Your task to perform on an android device: Clear the shopping cart on ebay.com. Add "usb-c to usb-a" to the cart on ebay.com Image 0: 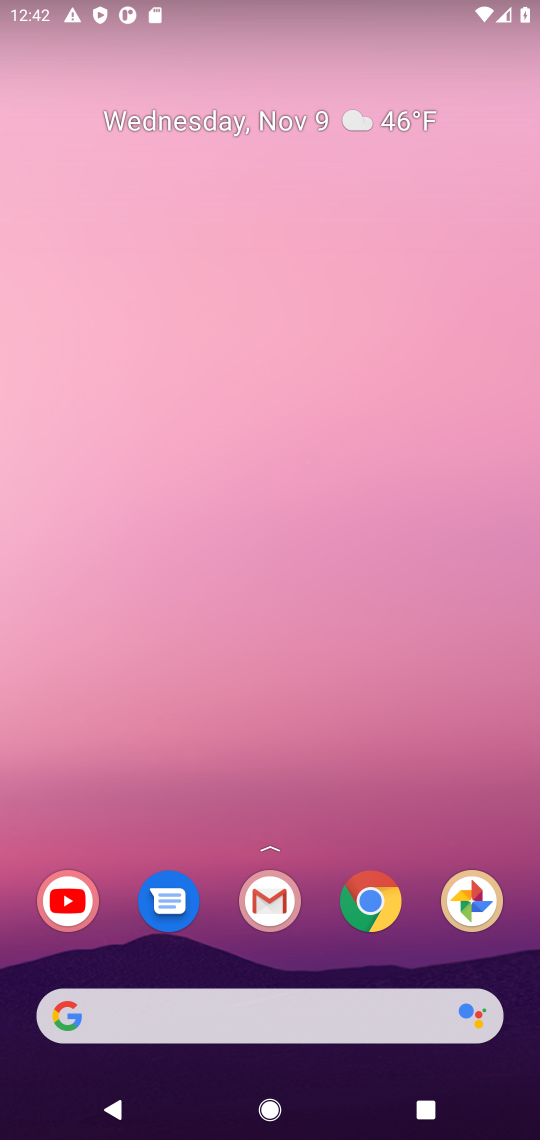
Step 0: click (367, 898)
Your task to perform on an android device: Clear the shopping cart on ebay.com. Add "usb-c to usb-a" to the cart on ebay.com Image 1: 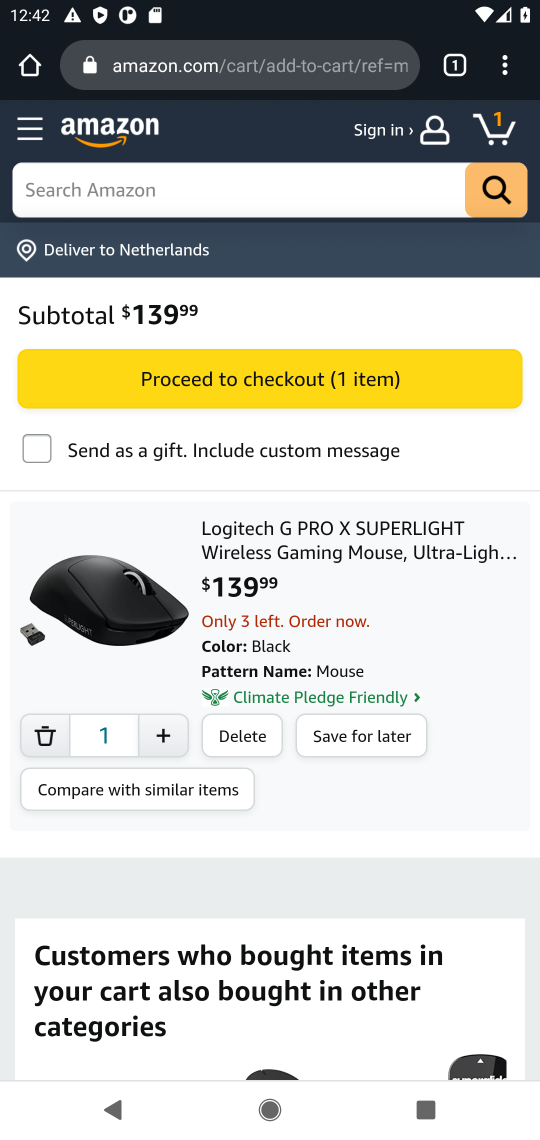
Step 1: click (231, 65)
Your task to perform on an android device: Clear the shopping cart on ebay.com. Add "usb-c to usb-a" to the cart on ebay.com Image 2: 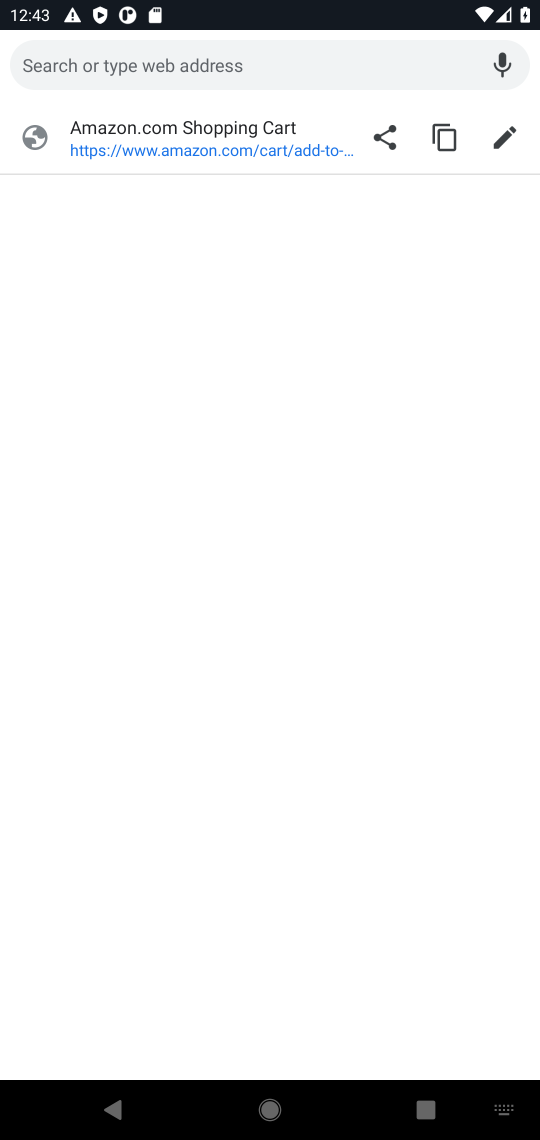
Step 2: type "ebay.com"
Your task to perform on an android device: Clear the shopping cart on ebay.com. Add "usb-c to usb-a" to the cart on ebay.com Image 3: 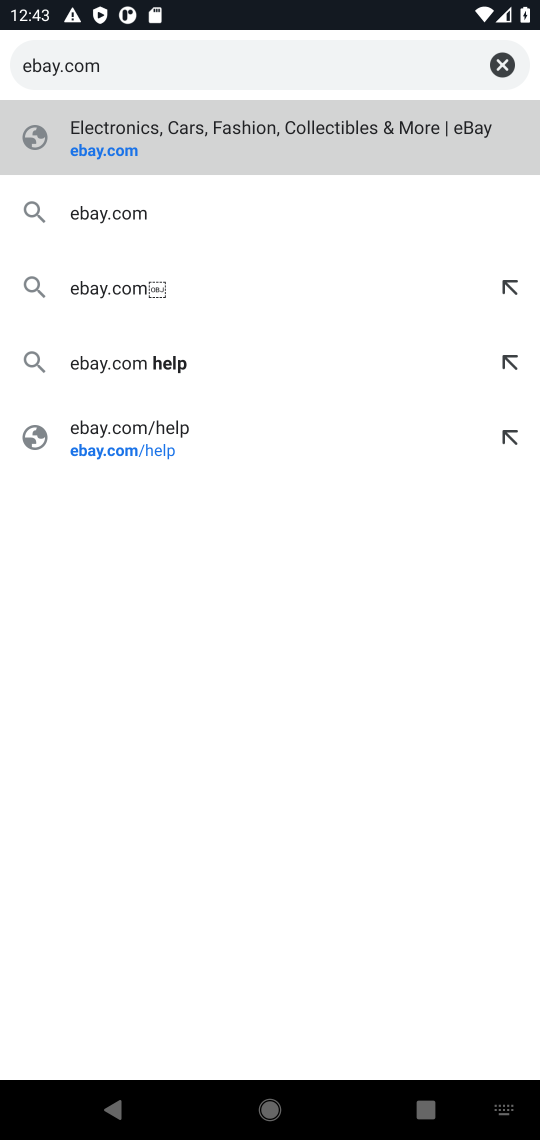
Step 3: click (111, 210)
Your task to perform on an android device: Clear the shopping cart on ebay.com. Add "usb-c to usb-a" to the cart on ebay.com Image 4: 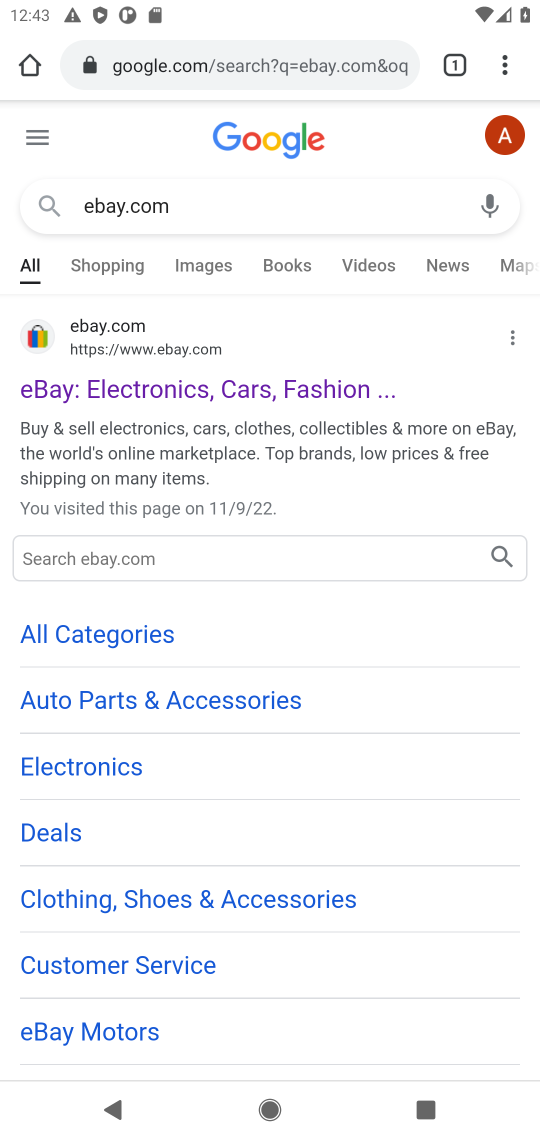
Step 4: click (174, 350)
Your task to perform on an android device: Clear the shopping cart on ebay.com. Add "usb-c to usb-a" to the cart on ebay.com Image 5: 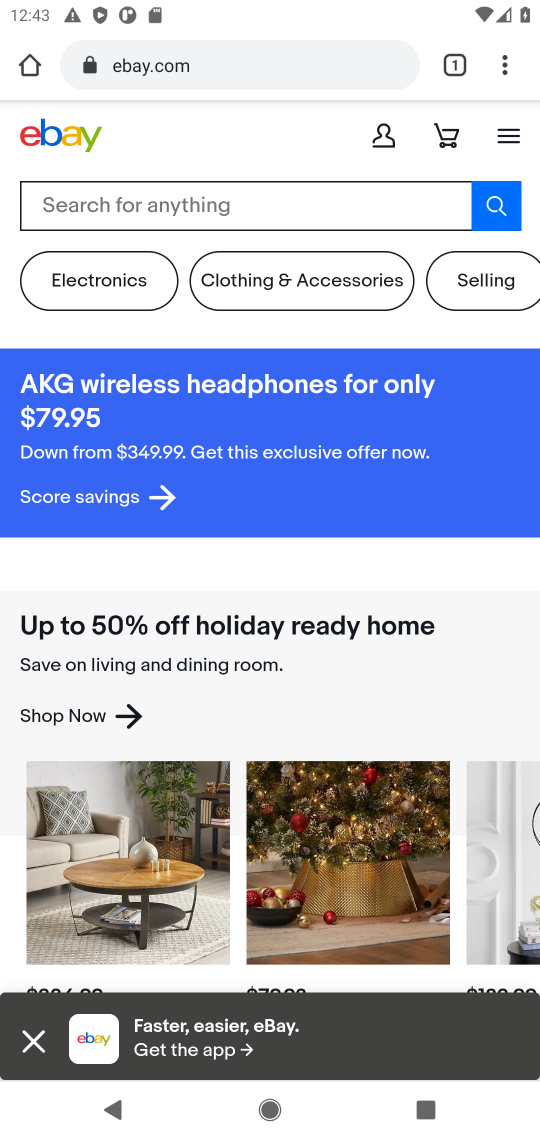
Step 5: click (287, 197)
Your task to perform on an android device: Clear the shopping cart on ebay.com. Add "usb-c to usb-a" to the cart on ebay.com Image 6: 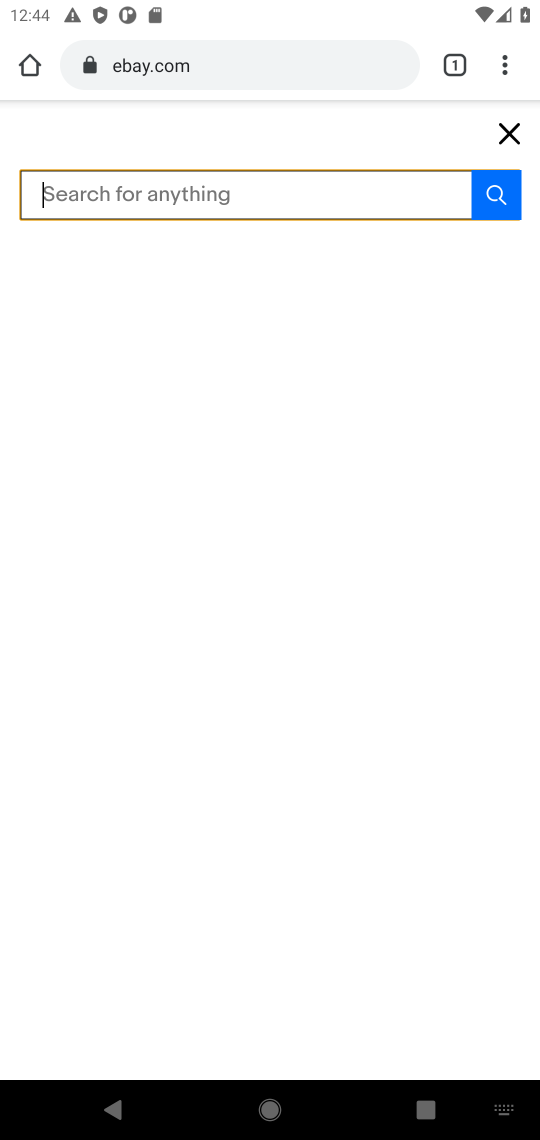
Step 6: type "usb-c to usb-a"
Your task to perform on an android device: Clear the shopping cart on ebay.com. Add "usb-c to usb-a" to the cart on ebay.com Image 7: 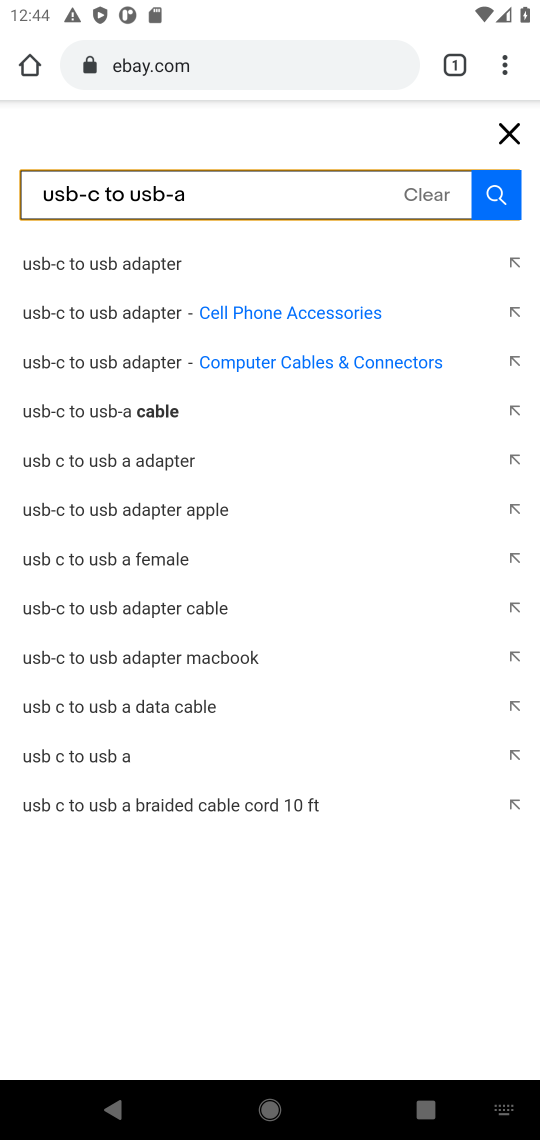
Step 7: click (112, 758)
Your task to perform on an android device: Clear the shopping cart on ebay.com. Add "usb-c to usb-a" to the cart on ebay.com Image 8: 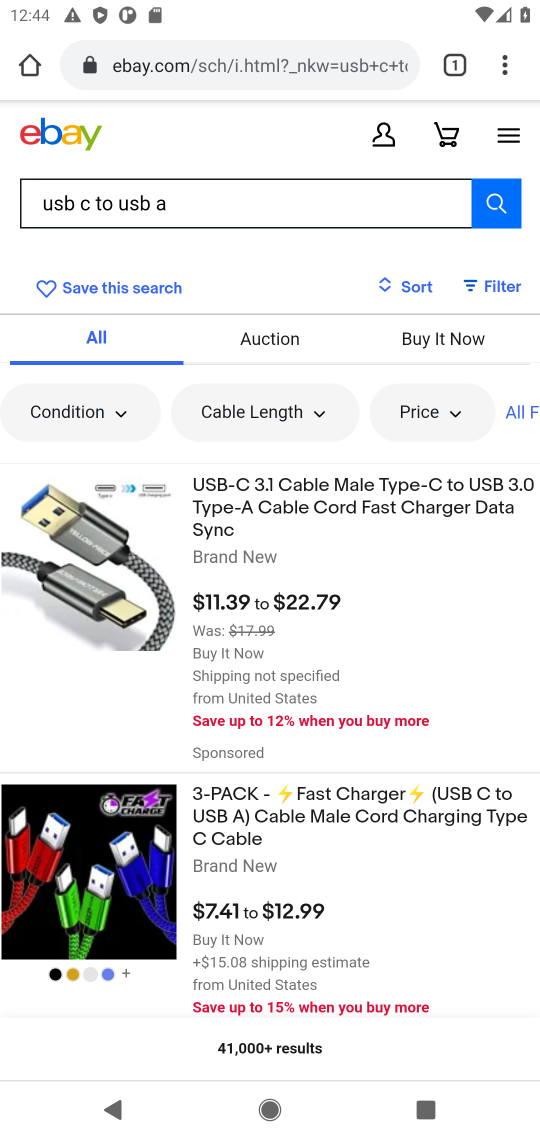
Step 8: click (102, 595)
Your task to perform on an android device: Clear the shopping cart on ebay.com. Add "usb-c to usb-a" to the cart on ebay.com Image 9: 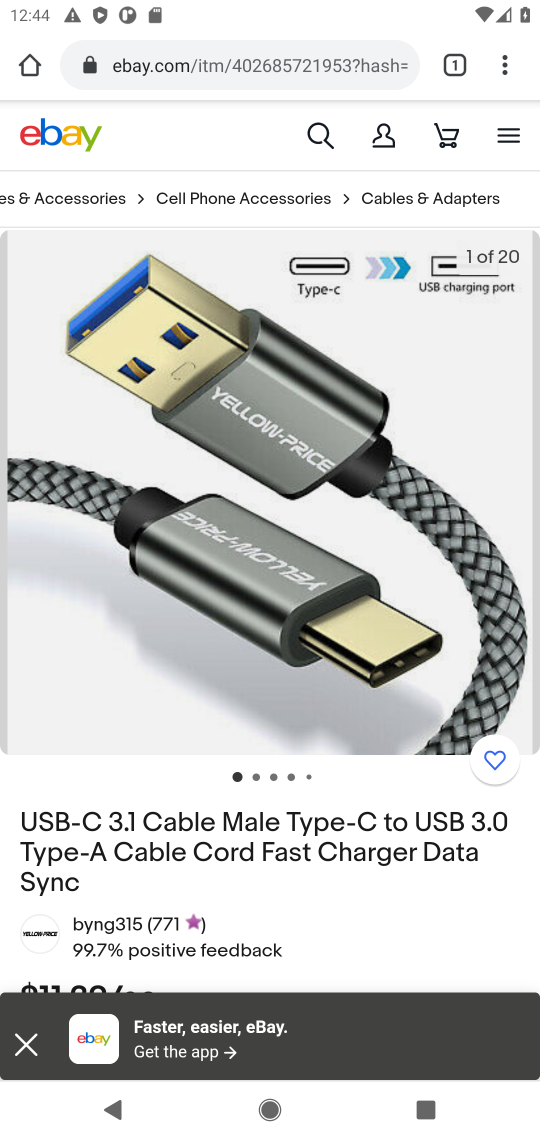
Step 9: drag from (276, 678) to (330, 268)
Your task to perform on an android device: Clear the shopping cart on ebay.com. Add "usb-c to usb-a" to the cart on ebay.com Image 10: 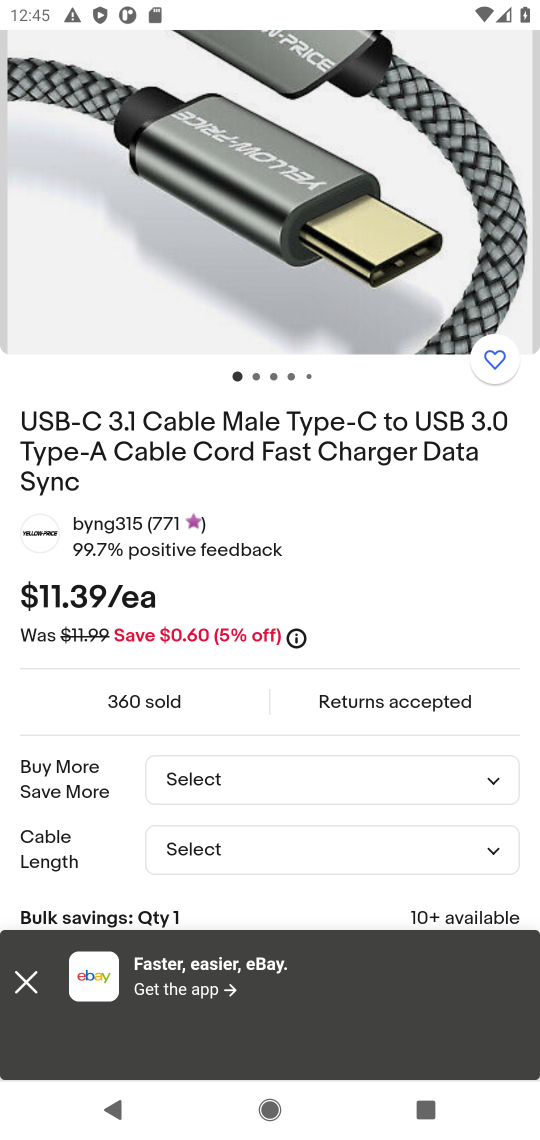
Step 10: drag from (349, 606) to (366, 146)
Your task to perform on an android device: Clear the shopping cart on ebay.com. Add "usb-c to usb-a" to the cart on ebay.com Image 11: 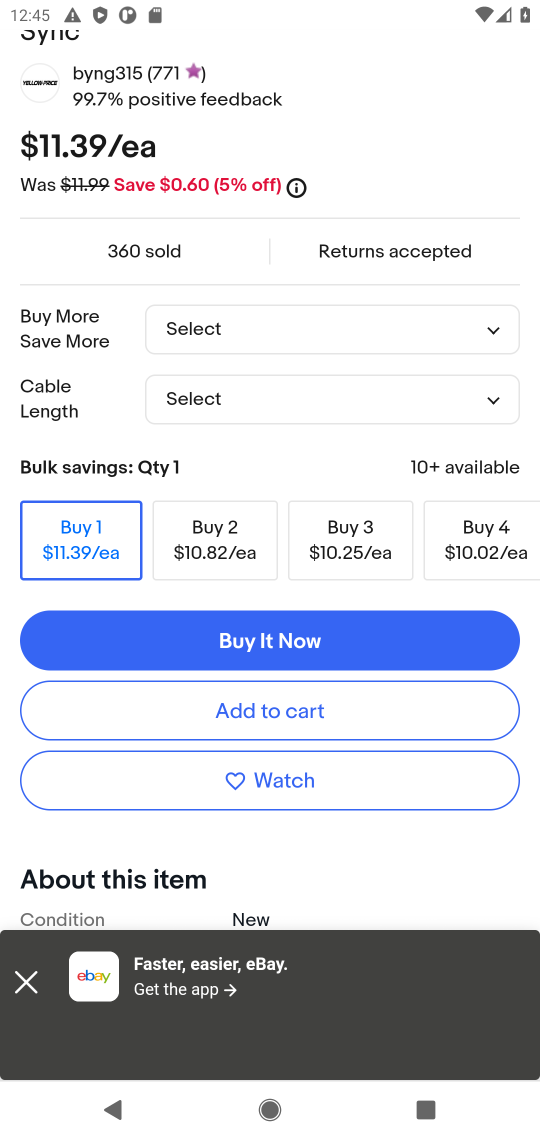
Step 11: click (289, 710)
Your task to perform on an android device: Clear the shopping cart on ebay.com. Add "usb-c to usb-a" to the cart on ebay.com Image 12: 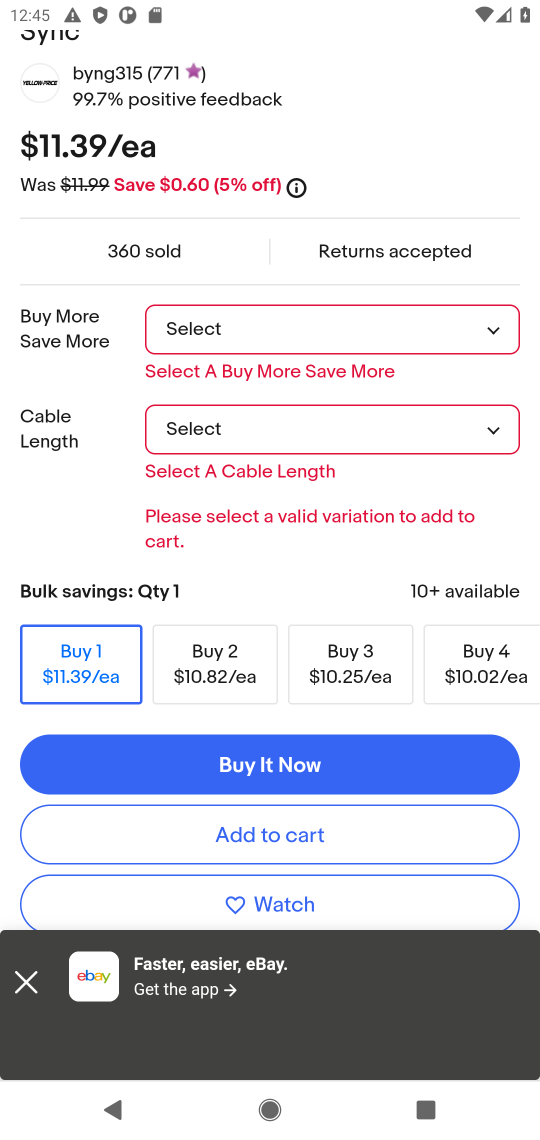
Step 12: click (293, 836)
Your task to perform on an android device: Clear the shopping cart on ebay.com. Add "usb-c to usb-a" to the cart on ebay.com Image 13: 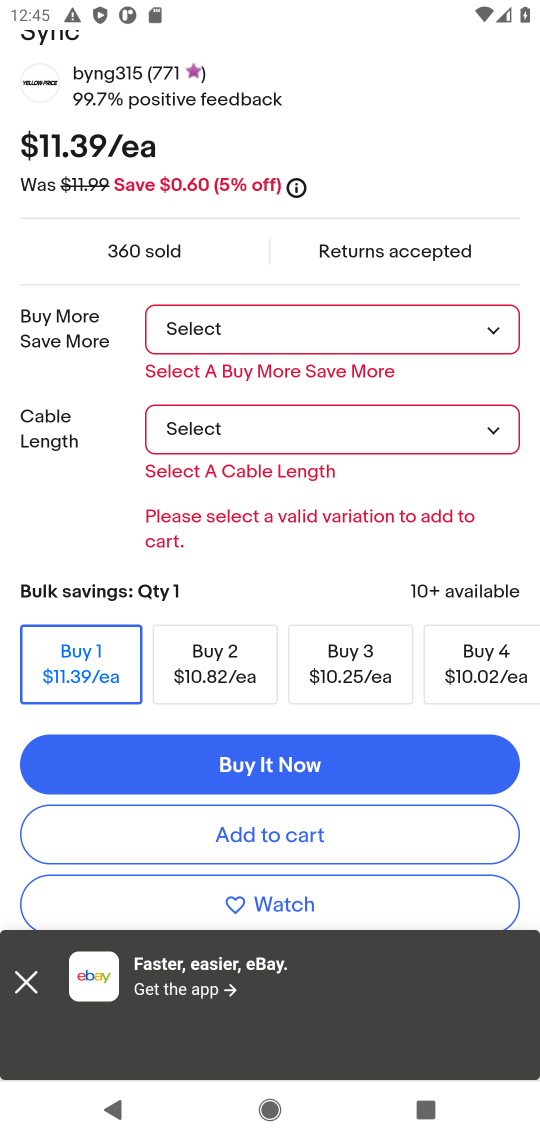
Step 13: click (293, 836)
Your task to perform on an android device: Clear the shopping cart on ebay.com. Add "usb-c to usb-a" to the cart on ebay.com Image 14: 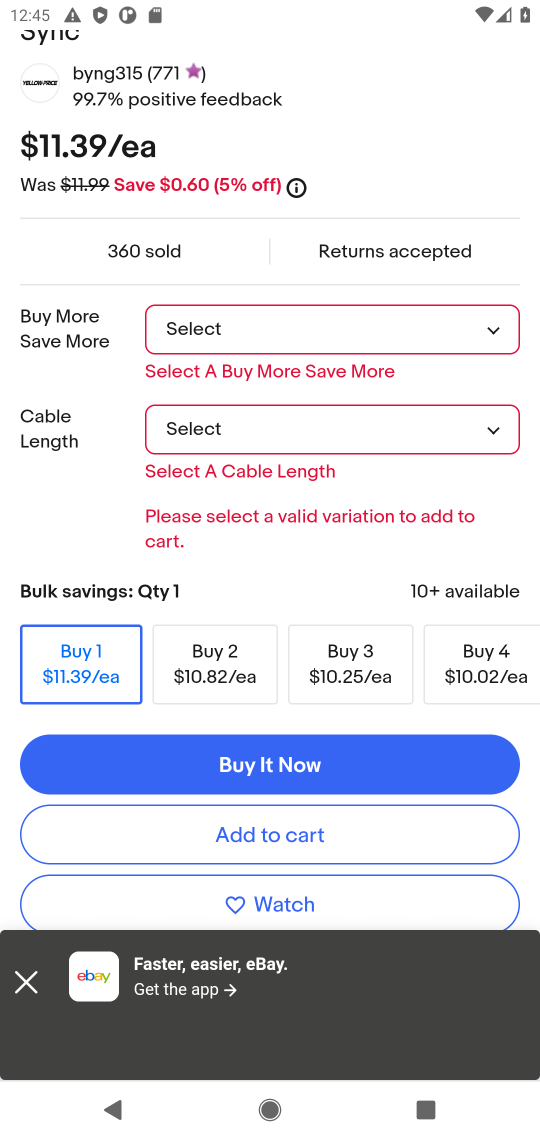
Step 14: press back button
Your task to perform on an android device: Clear the shopping cart on ebay.com. Add "usb-c to usb-a" to the cart on ebay.com Image 15: 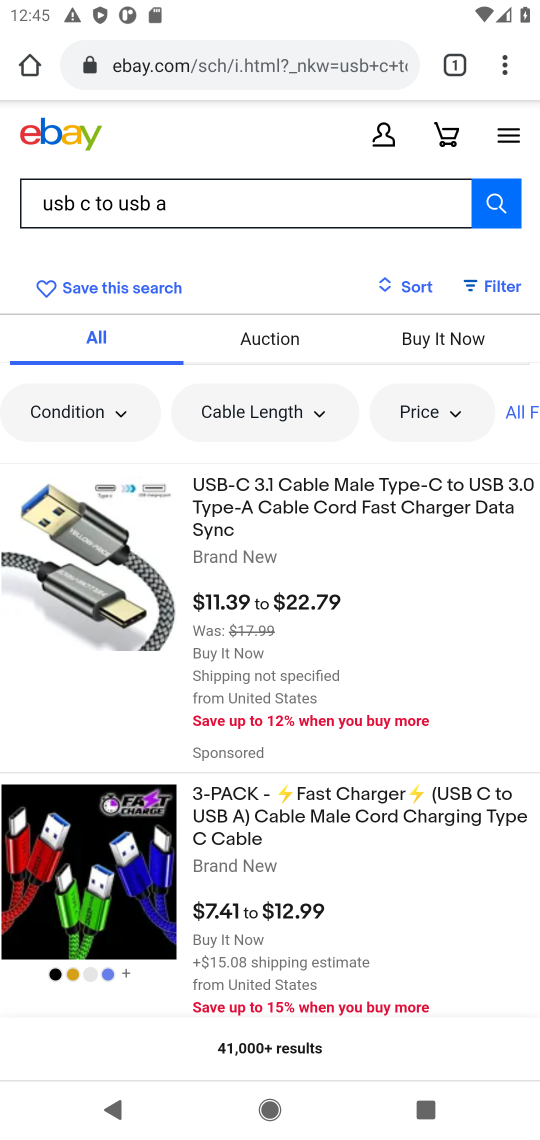
Step 15: click (98, 869)
Your task to perform on an android device: Clear the shopping cart on ebay.com. Add "usb-c to usb-a" to the cart on ebay.com Image 16: 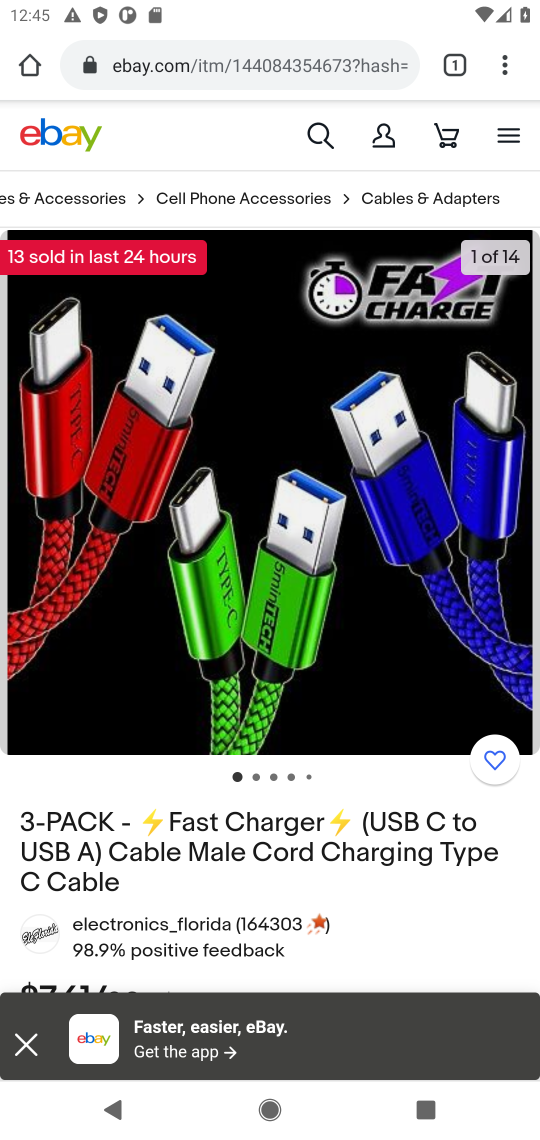
Step 16: drag from (293, 854) to (295, 139)
Your task to perform on an android device: Clear the shopping cart on ebay.com. Add "usb-c to usb-a" to the cart on ebay.com Image 17: 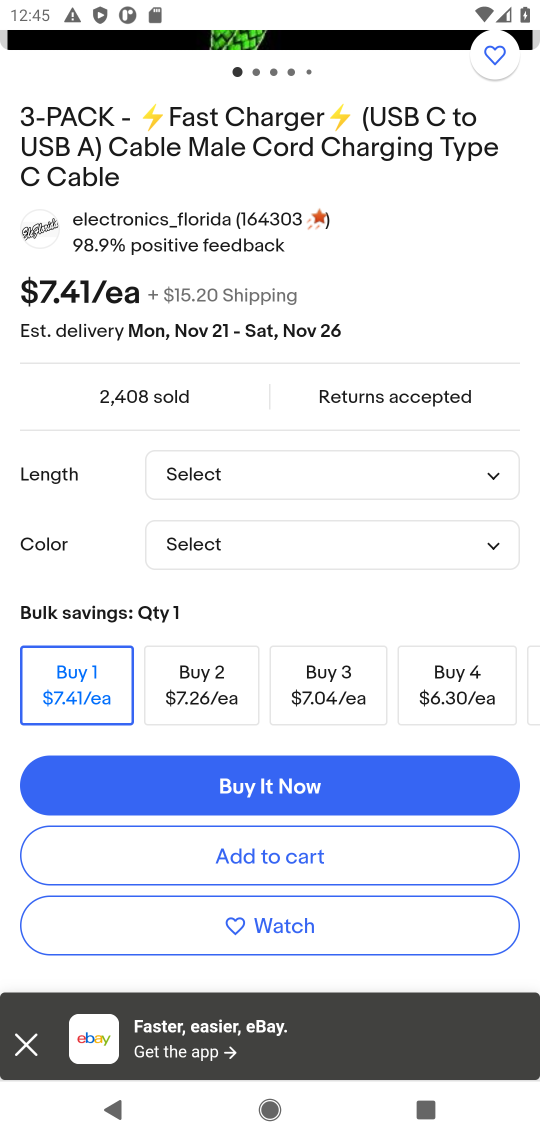
Step 17: click (288, 852)
Your task to perform on an android device: Clear the shopping cart on ebay.com. Add "usb-c to usb-a" to the cart on ebay.com Image 18: 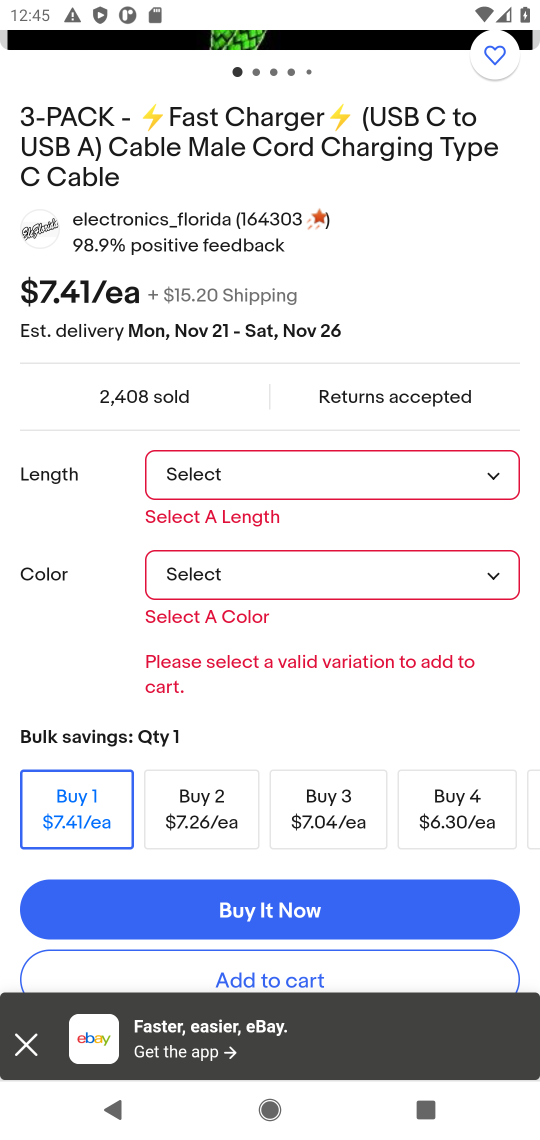
Step 18: press back button
Your task to perform on an android device: Clear the shopping cart on ebay.com. Add "usb-c to usb-a" to the cart on ebay.com Image 19: 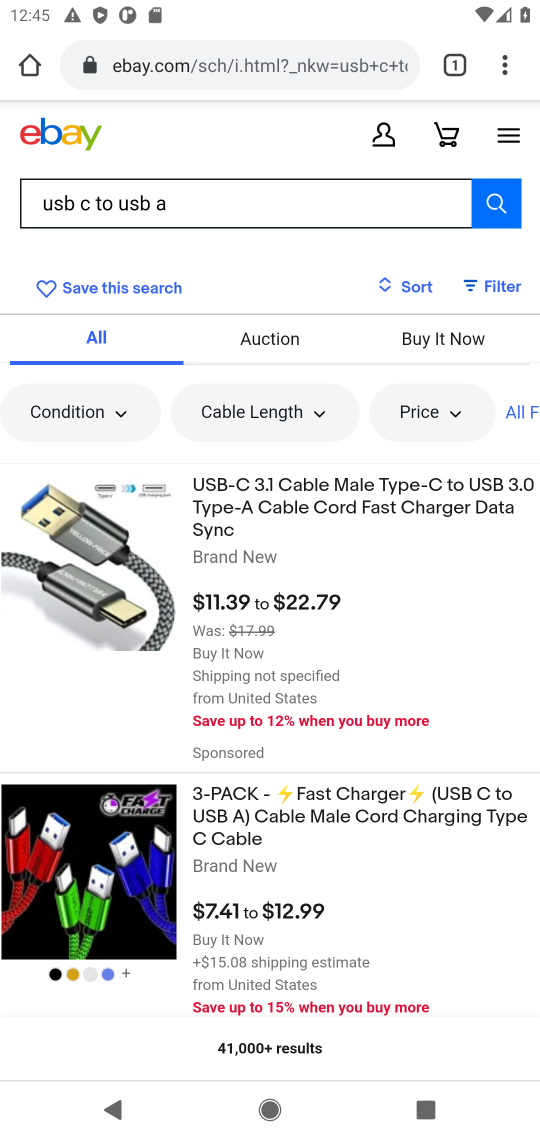
Step 19: drag from (391, 592) to (410, 366)
Your task to perform on an android device: Clear the shopping cart on ebay.com. Add "usb-c to usb-a" to the cart on ebay.com Image 20: 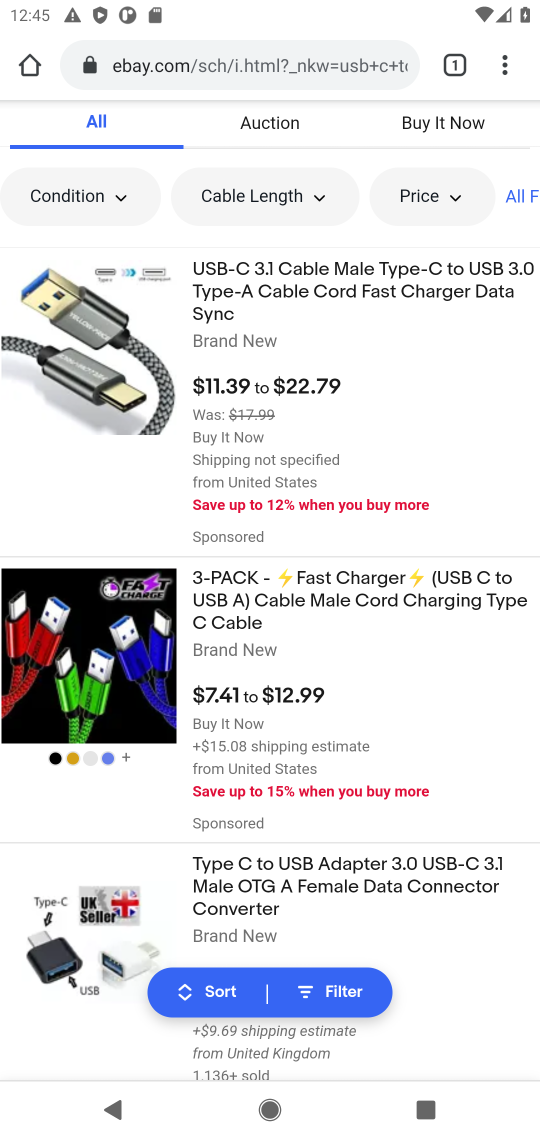
Step 20: click (76, 934)
Your task to perform on an android device: Clear the shopping cart on ebay.com. Add "usb-c to usb-a" to the cart on ebay.com Image 21: 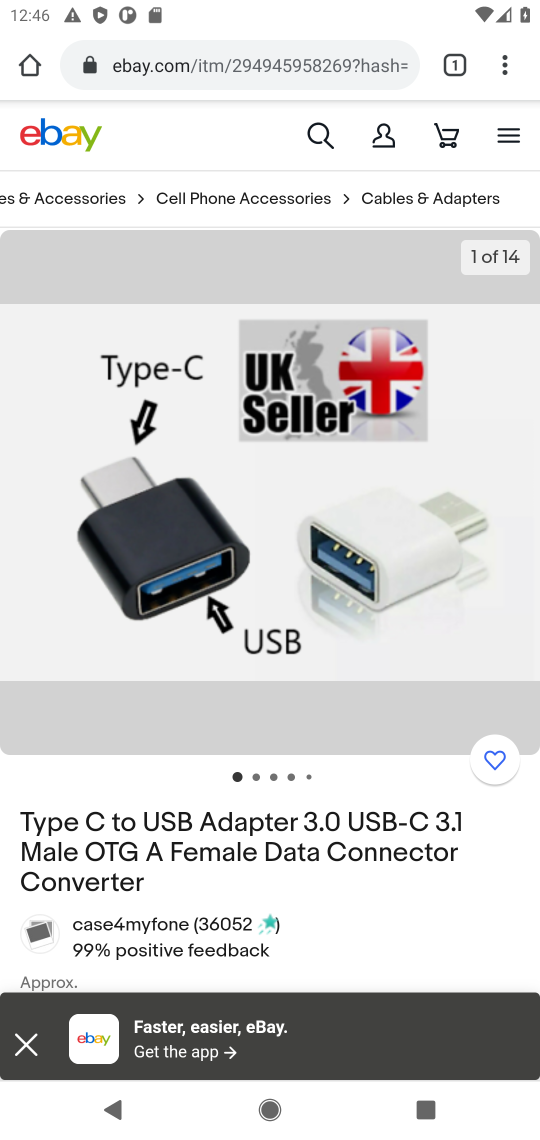
Step 21: drag from (341, 889) to (345, 270)
Your task to perform on an android device: Clear the shopping cart on ebay.com. Add "usb-c to usb-a" to the cart on ebay.com Image 22: 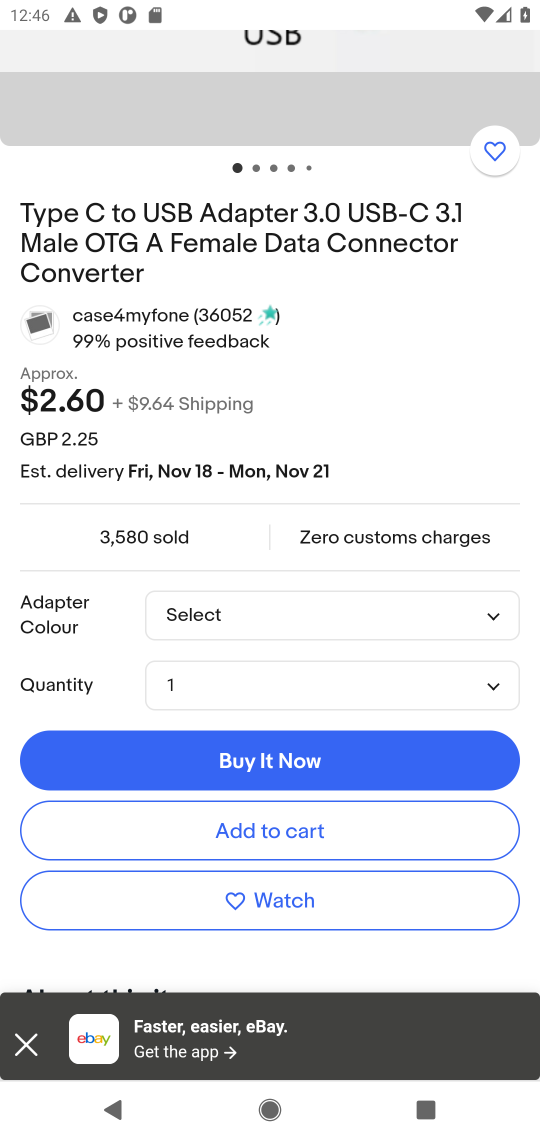
Step 22: click (285, 835)
Your task to perform on an android device: Clear the shopping cart on ebay.com. Add "usb-c to usb-a" to the cart on ebay.com Image 23: 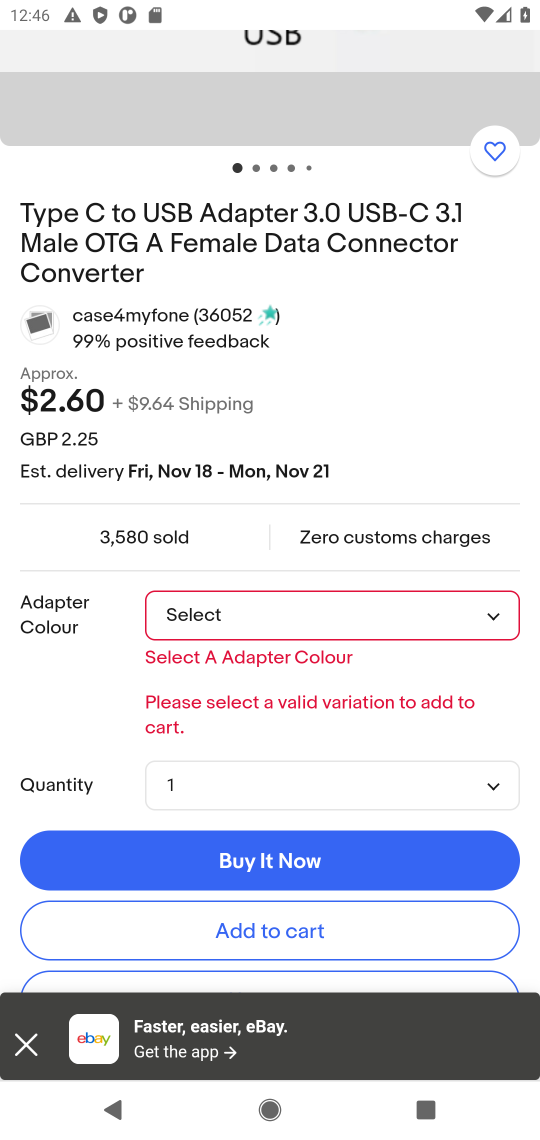
Step 23: task complete